Your task to perform on an android device: turn off wifi Image 0: 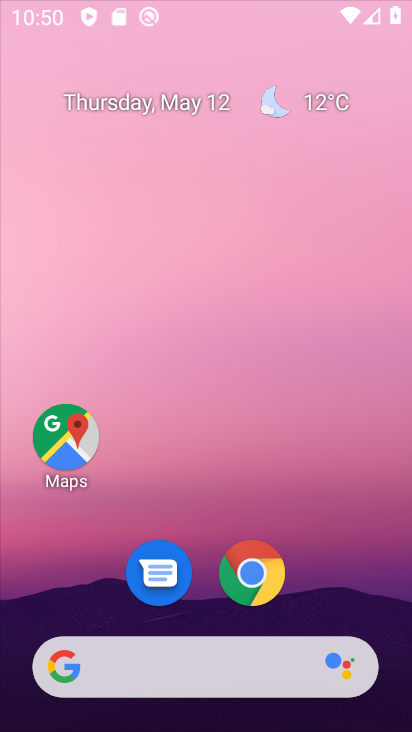
Step 0: click (261, 161)
Your task to perform on an android device: turn off wifi Image 1: 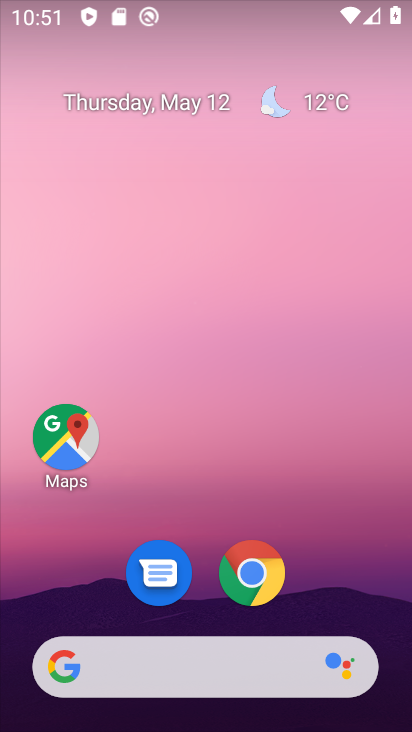
Step 1: drag from (226, 725) to (223, 0)
Your task to perform on an android device: turn off wifi Image 2: 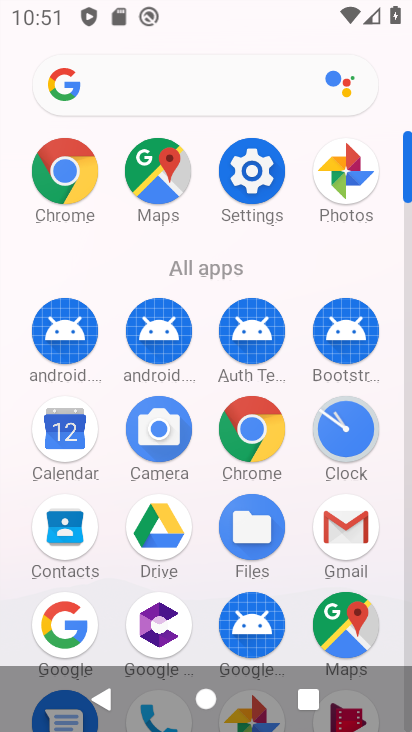
Step 2: click (262, 214)
Your task to perform on an android device: turn off wifi Image 3: 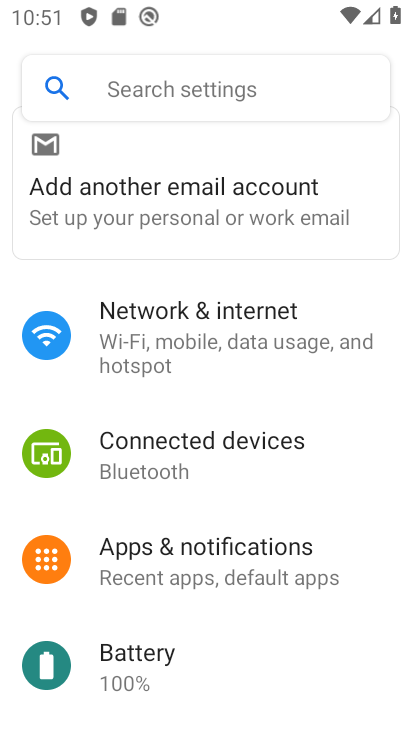
Step 3: click (284, 329)
Your task to perform on an android device: turn off wifi Image 4: 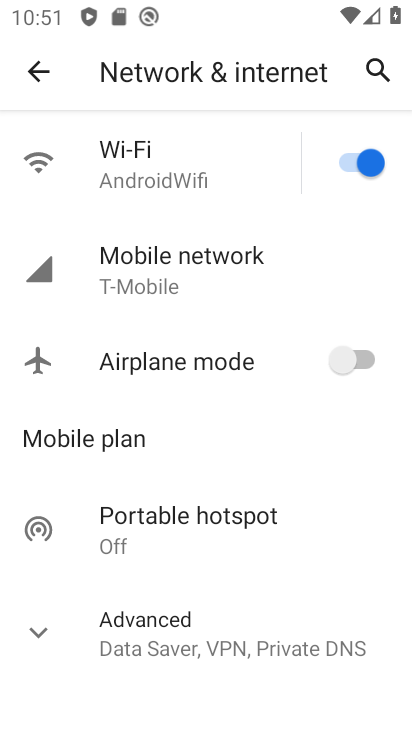
Step 4: click (362, 155)
Your task to perform on an android device: turn off wifi Image 5: 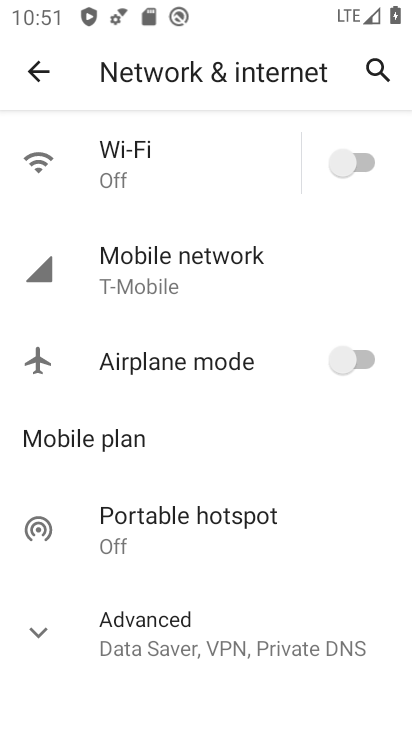
Step 5: task complete